Your task to perform on an android device: Open Google Maps and go to "Timeline" Image 0: 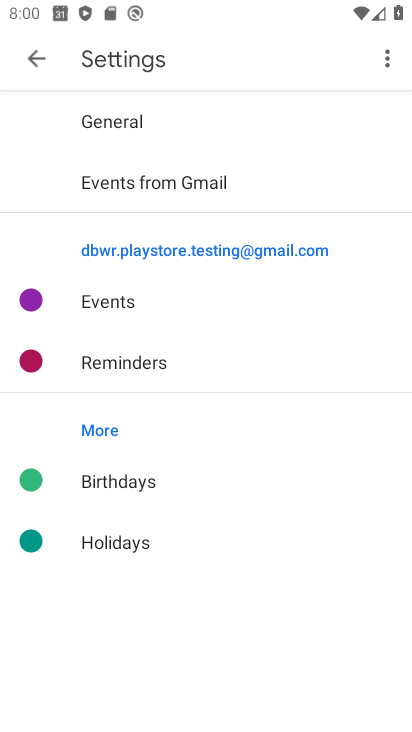
Step 0: press home button
Your task to perform on an android device: Open Google Maps and go to "Timeline" Image 1: 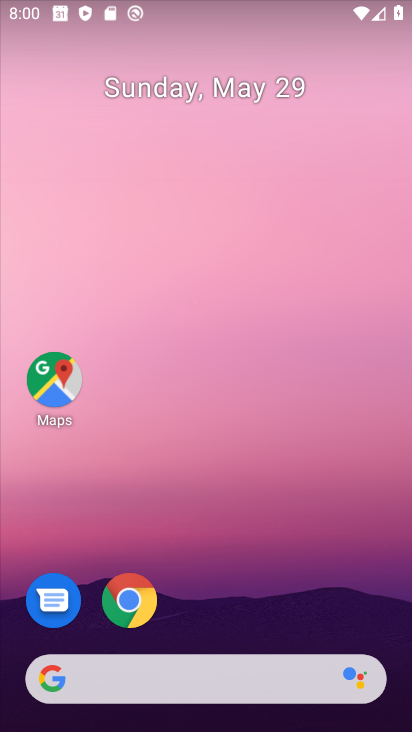
Step 1: drag from (303, 575) to (330, 138)
Your task to perform on an android device: Open Google Maps and go to "Timeline" Image 2: 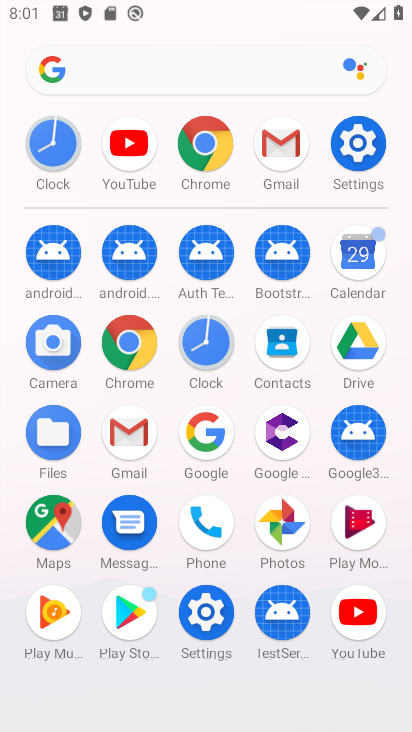
Step 2: click (41, 533)
Your task to perform on an android device: Open Google Maps and go to "Timeline" Image 3: 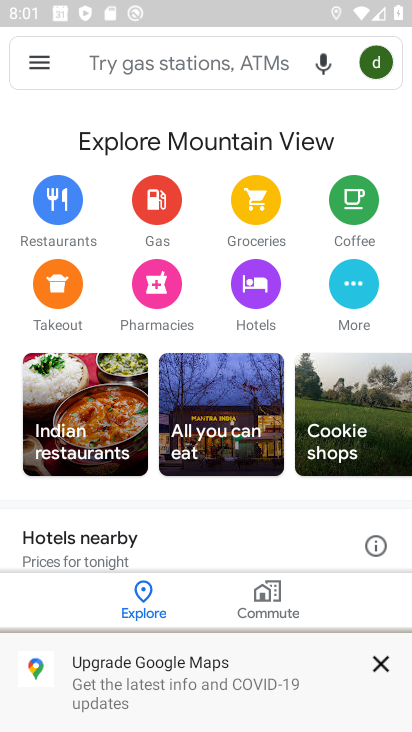
Step 3: click (31, 58)
Your task to perform on an android device: Open Google Maps and go to "Timeline" Image 4: 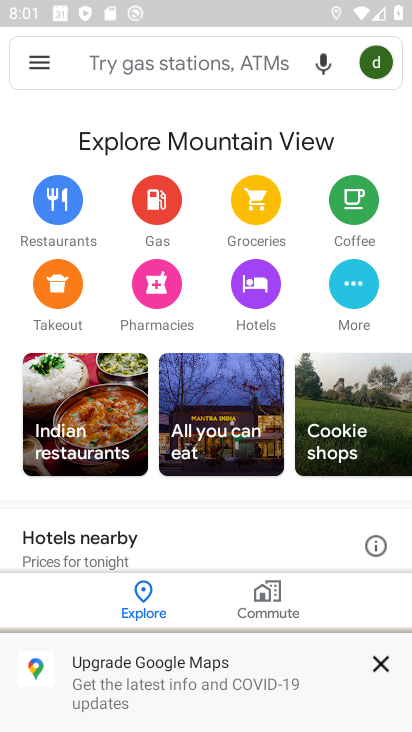
Step 4: click (51, 64)
Your task to perform on an android device: Open Google Maps and go to "Timeline" Image 5: 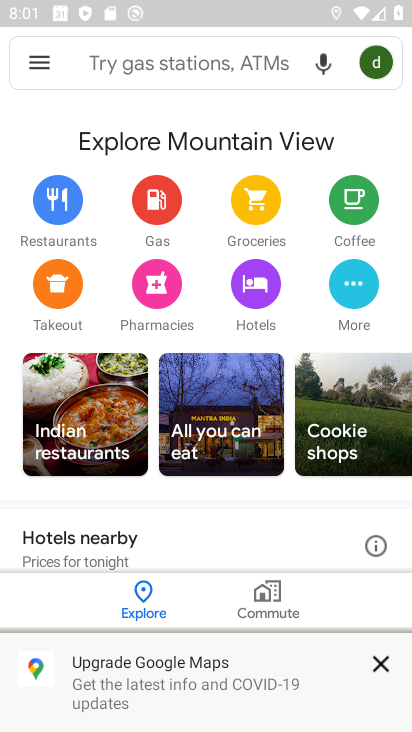
Step 5: click (47, 56)
Your task to perform on an android device: Open Google Maps and go to "Timeline" Image 6: 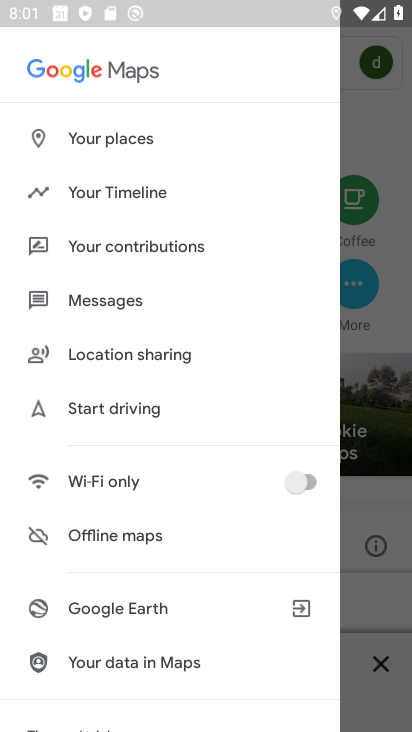
Step 6: click (135, 200)
Your task to perform on an android device: Open Google Maps and go to "Timeline" Image 7: 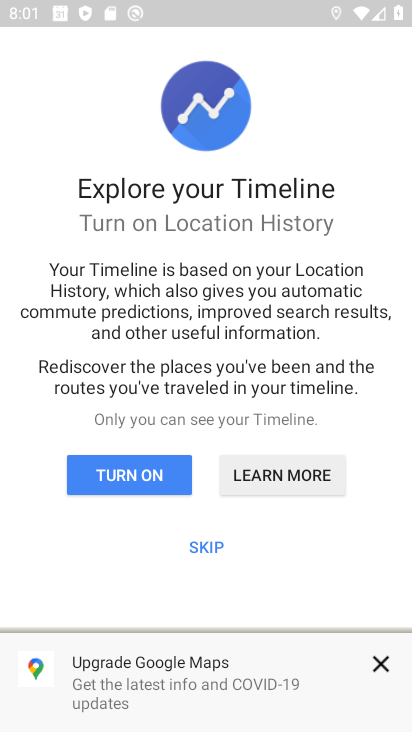
Step 7: click (210, 555)
Your task to perform on an android device: Open Google Maps and go to "Timeline" Image 8: 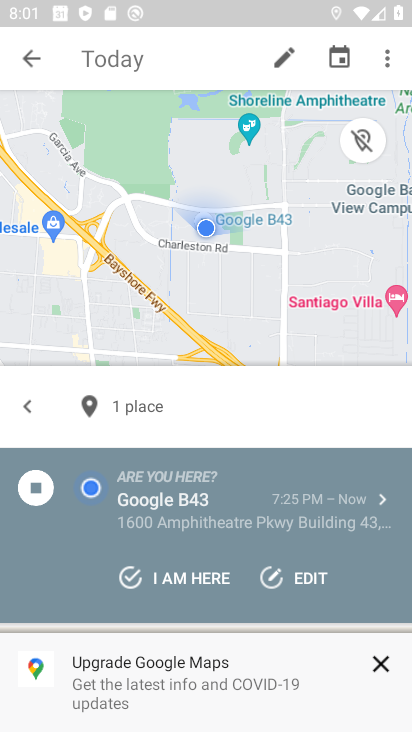
Step 8: task complete